Your task to perform on an android device: Search for Italian restaurants on Maps Image 0: 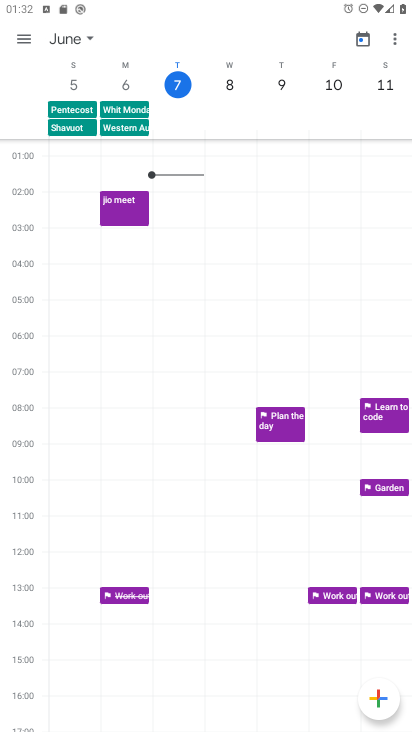
Step 0: press home button
Your task to perform on an android device: Search for Italian restaurants on Maps Image 1: 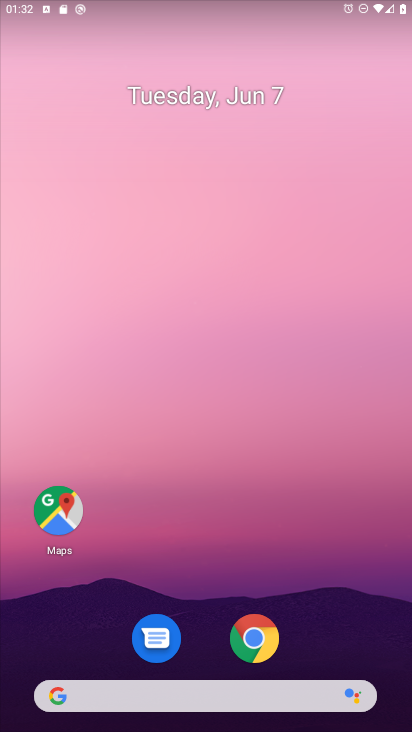
Step 1: drag from (212, 723) to (278, 211)
Your task to perform on an android device: Search for Italian restaurants on Maps Image 2: 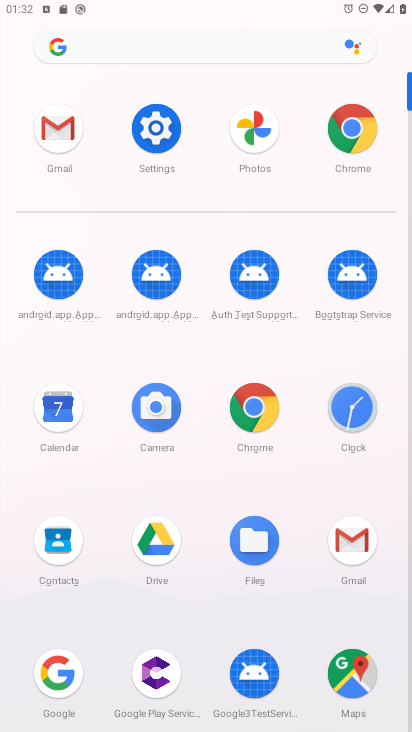
Step 2: click (369, 547)
Your task to perform on an android device: Search for Italian restaurants on Maps Image 3: 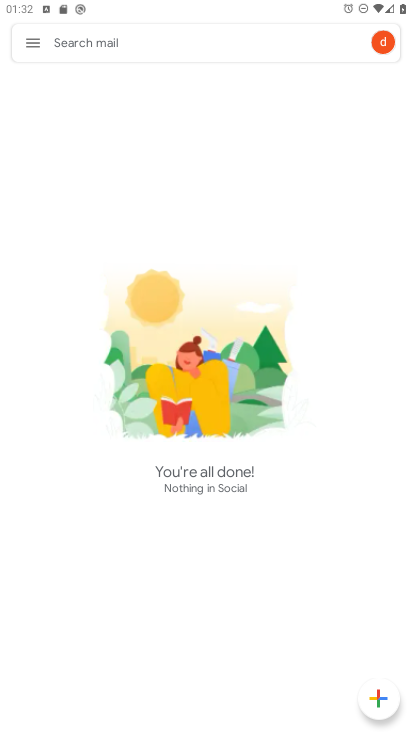
Step 3: click (28, 42)
Your task to perform on an android device: Search for Italian restaurants on Maps Image 4: 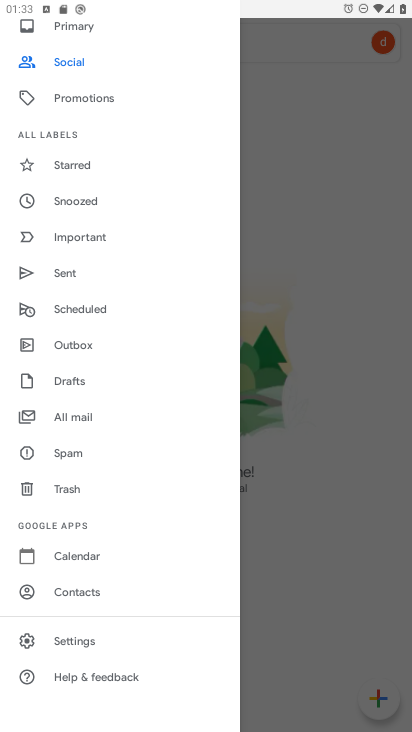
Step 4: press home button
Your task to perform on an android device: Search for Italian restaurants on Maps Image 5: 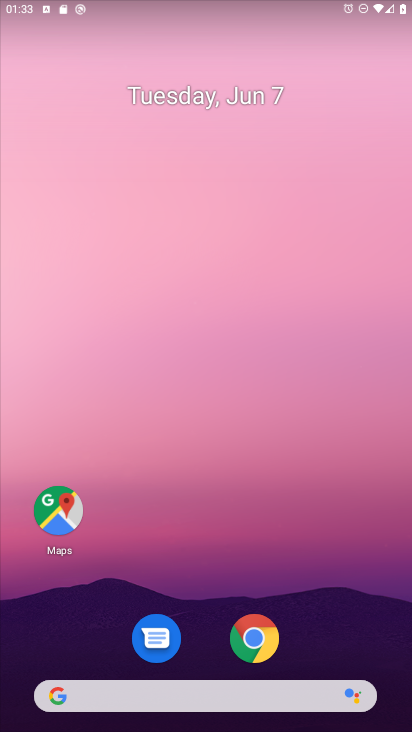
Step 5: press home button
Your task to perform on an android device: Search for Italian restaurants on Maps Image 6: 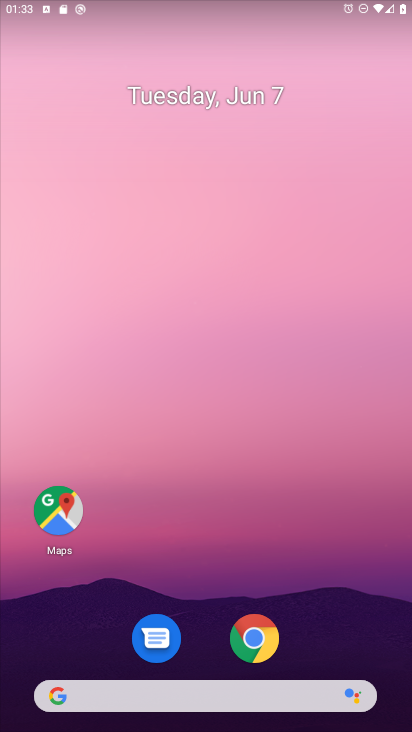
Step 6: press home button
Your task to perform on an android device: Search for Italian restaurants on Maps Image 7: 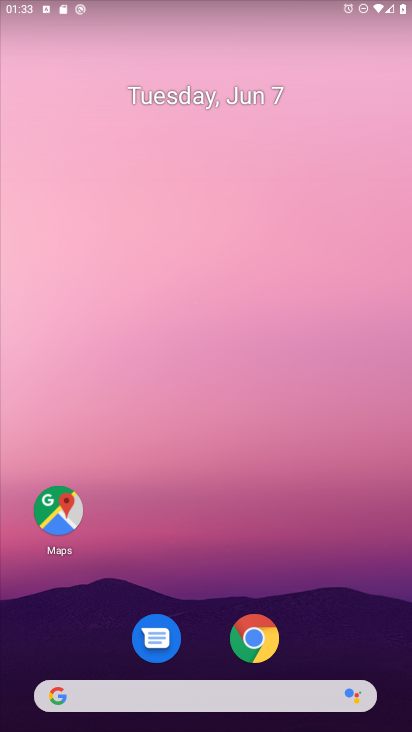
Step 7: drag from (192, 715) to (251, 155)
Your task to perform on an android device: Search for Italian restaurants on Maps Image 8: 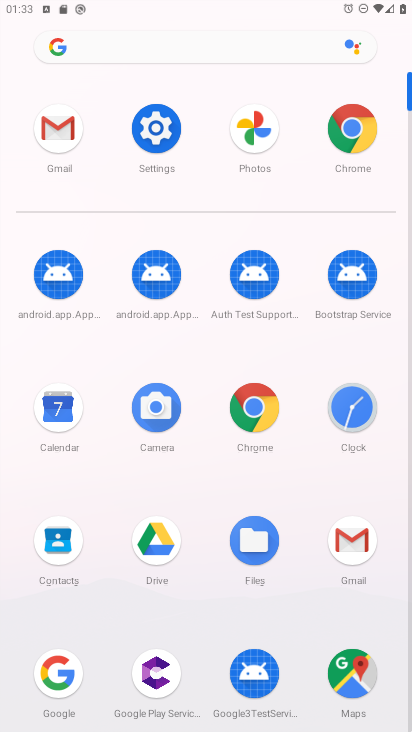
Step 8: click (350, 658)
Your task to perform on an android device: Search for Italian restaurants on Maps Image 9: 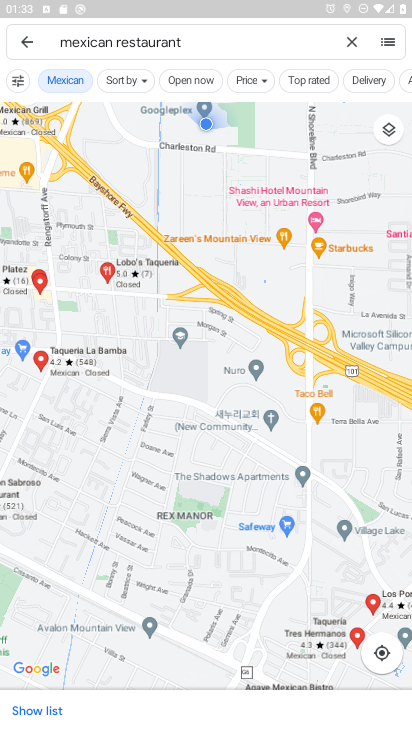
Step 9: click (351, 36)
Your task to perform on an android device: Search for Italian restaurants on Maps Image 10: 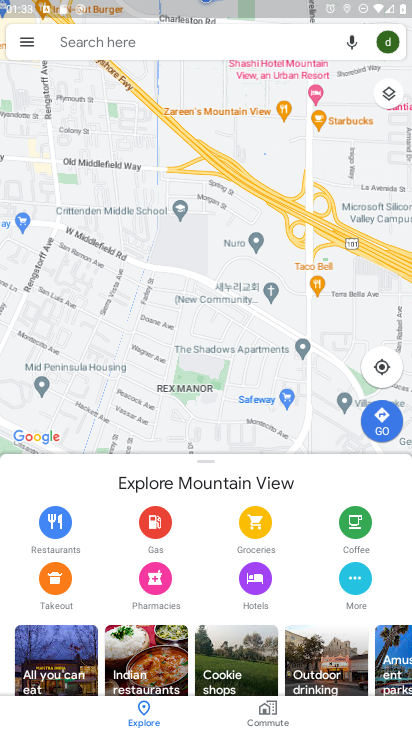
Step 10: click (162, 43)
Your task to perform on an android device: Search for Italian restaurants on Maps Image 11: 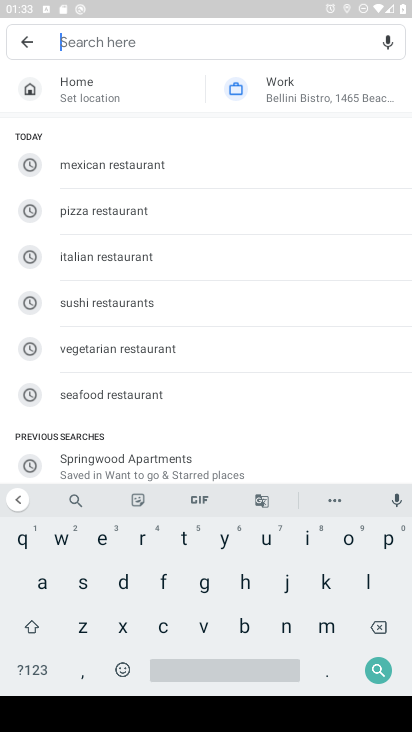
Step 11: click (307, 542)
Your task to perform on an android device: Search for Italian restaurants on Maps Image 12: 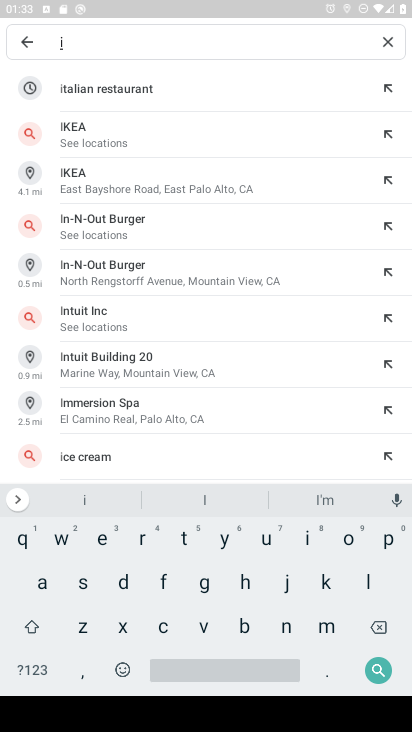
Step 12: click (88, 96)
Your task to perform on an android device: Search for Italian restaurants on Maps Image 13: 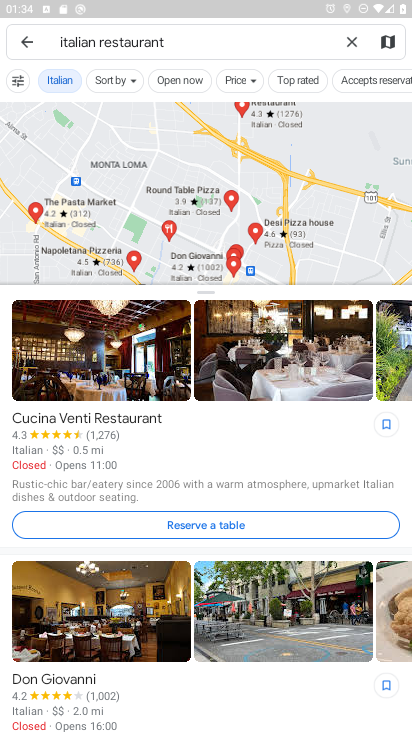
Step 13: task complete